Your task to perform on an android device: star an email in the gmail app Image 0: 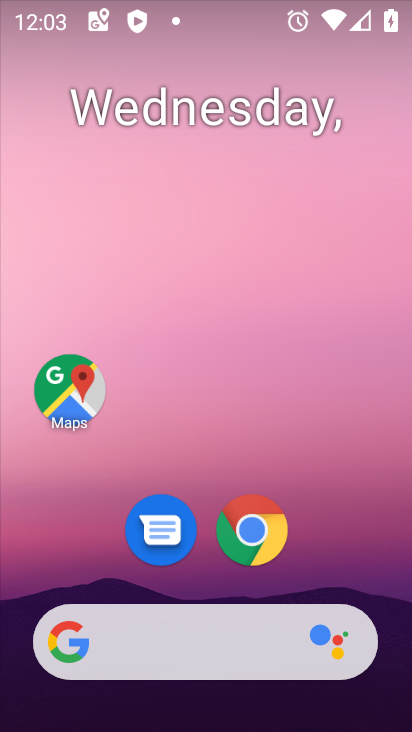
Step 0: drag from (195, 579) to (264, 266)
Your task to perform on an android device: star an email in the gmail app Image 1: 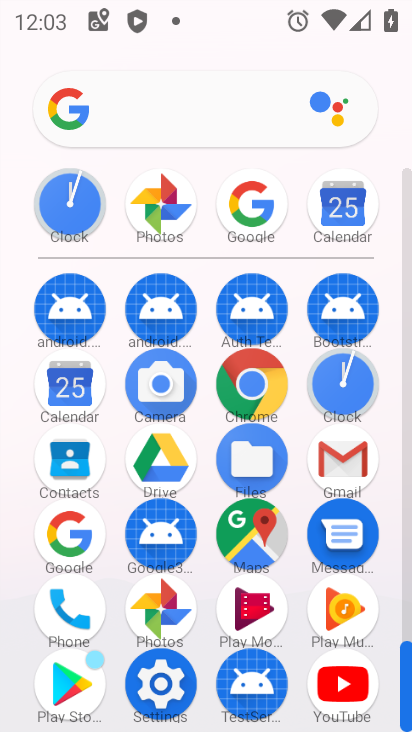
Step 1: click (344, 464)
Your task to perform on an android device: star an email in the gmail app Image 2: 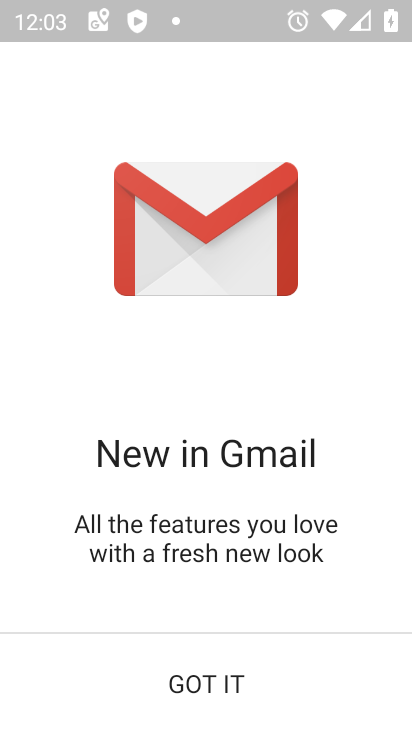
Step 2: click (213, 671)
Your task to perform on an android device: star an email in the gmail app Image 3: 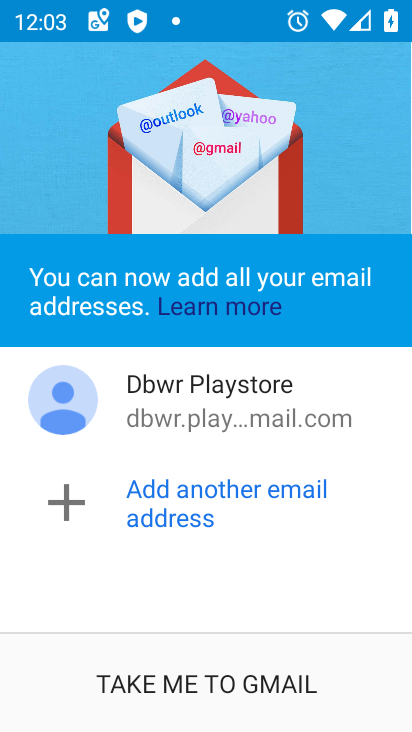
Step 3: click (210, 679)
Your task to perform on an android device: star an email in the gmail app Image 4: 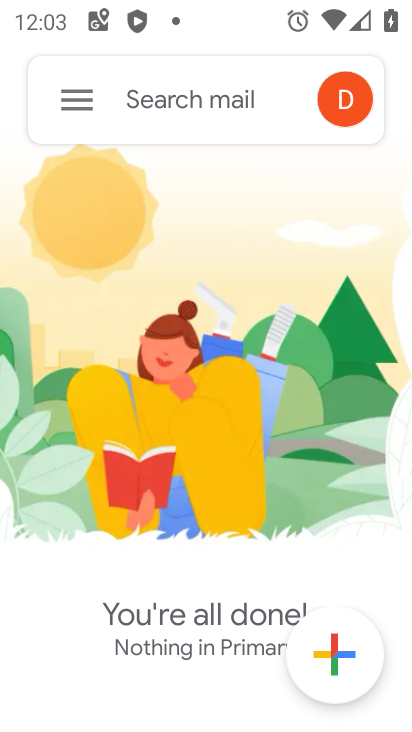
Step 4: click (82, 96)
Your task to perform on an android device: star an email in the gmail app Image 5: 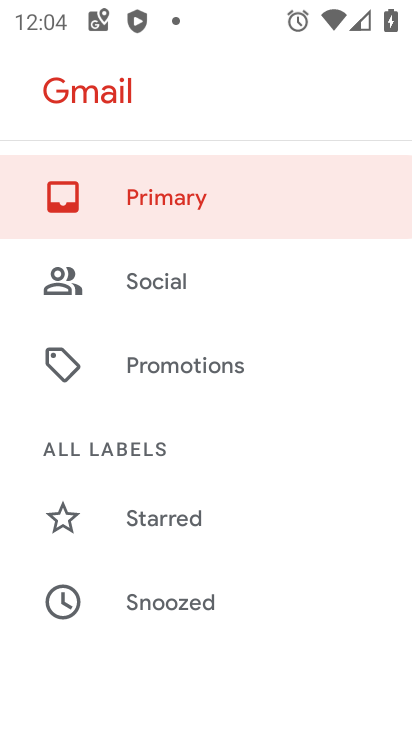
Step 5: drag from (201, 490) to (365, 107)
Your task to perform on an android device: star an email in the gmail app Image 6: 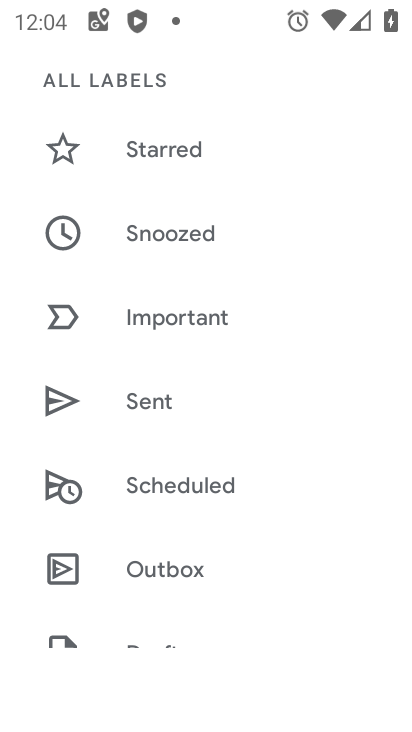
Step 6: drag from (236, 526) to (332, 157)
Your task to perform on an android device: star an email in the gmail app Image 7: 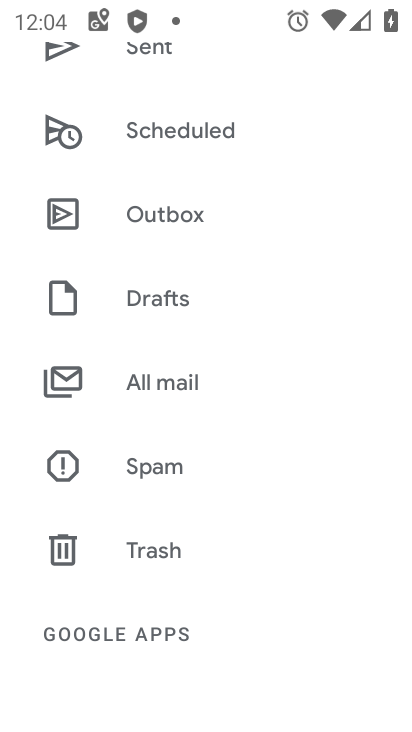
Step 7: click (171, 382)
Your task to perform on an android device: star an email in the gmail app Image 8: 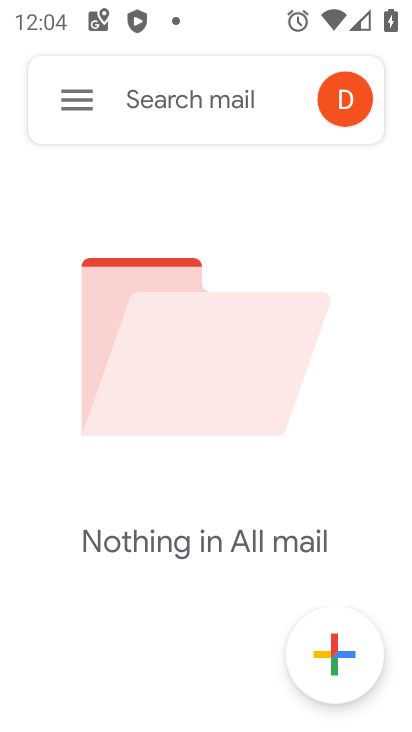
Step 8: task complete